Your task to perform on an android device: change the clock display to analog Image 0: 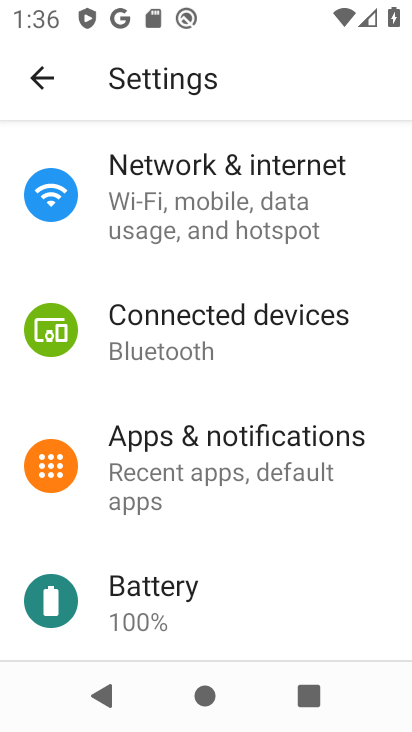
Step 0: press home button
Your task to perform on an android device: change the clock display to analog Image 1: 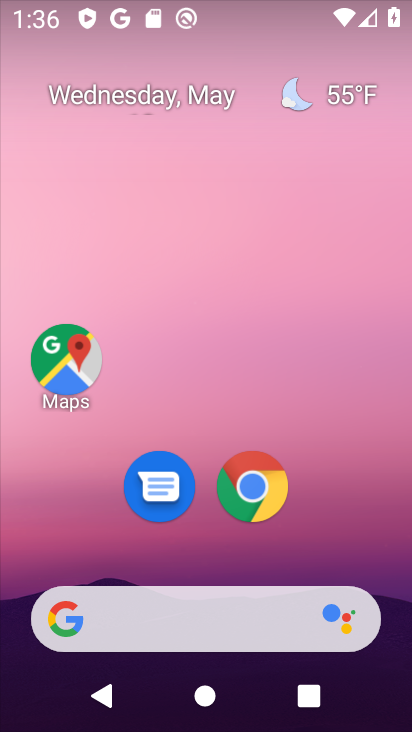
Step 1: drag from (249, 582) to (347, 205)
Your task to perform on an android device: change the clock display to analog Image 2: 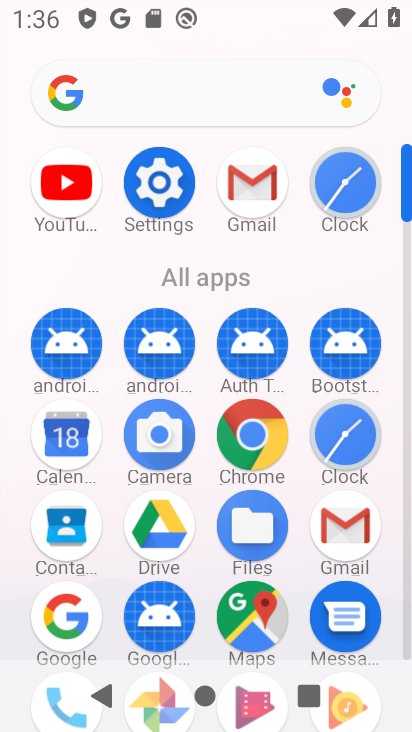
Step 2: click (337, 423)
Your task to perform on an android device: change the clock display to analog Image 3: 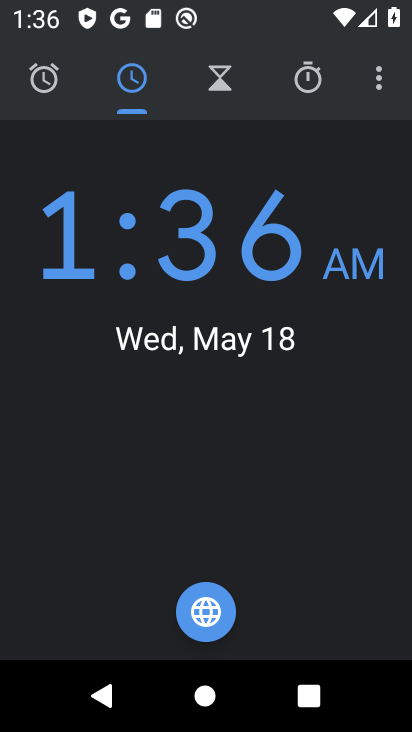
Step 3: click (374, 63)
Your task to perform on an android device: change the clock display to analog Image 4: 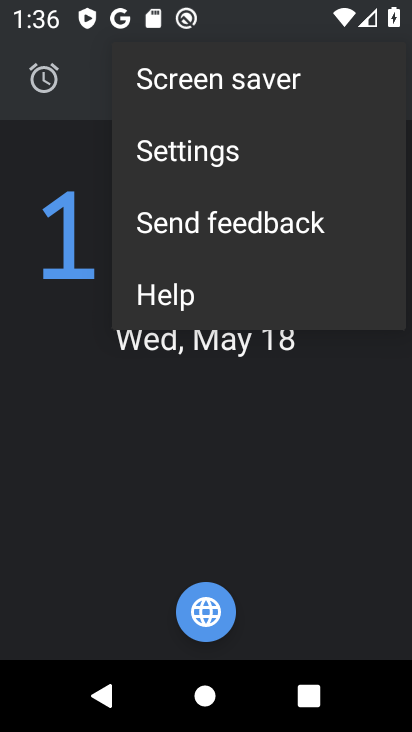
Step 4: click (194, 159)
Your task to perform on an android device: change the clock display to analog Image 5: 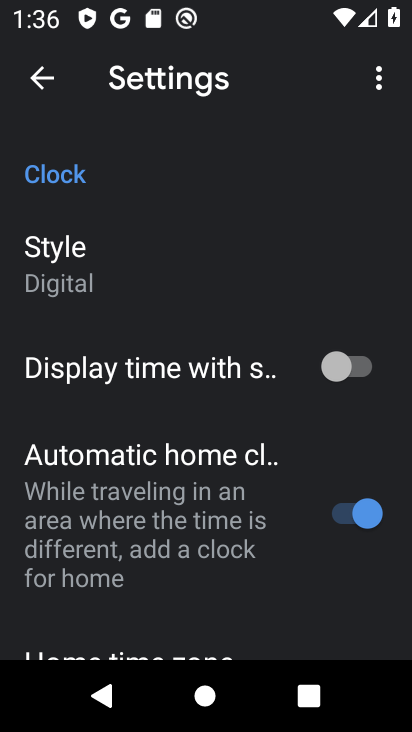
Step 5: click (56, 263)
Your task to perform on an android device: change the clock display to analog Image 6: 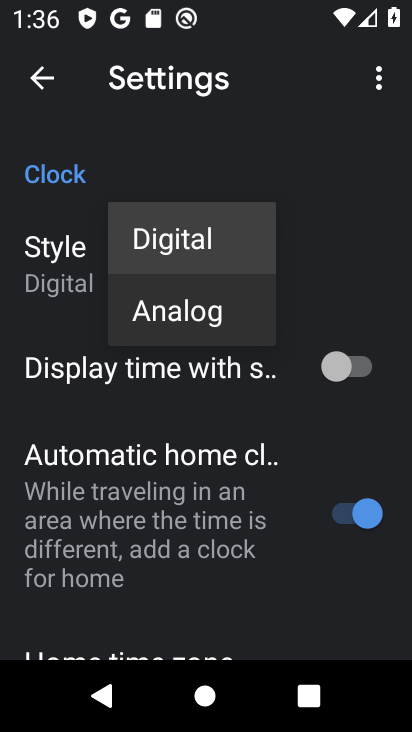
Step 6: click (159, 329)
Your task to perform on an android device: change the clock display to analog Image 7: 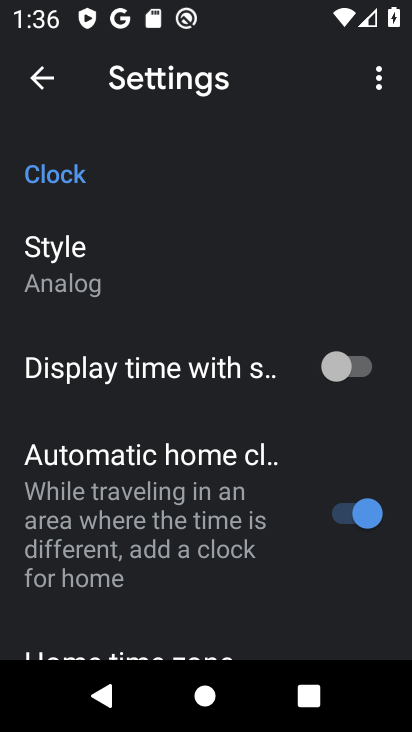
Step 7: task complete